Your task to perform on an android device: Go to ESPN.com Image 0: 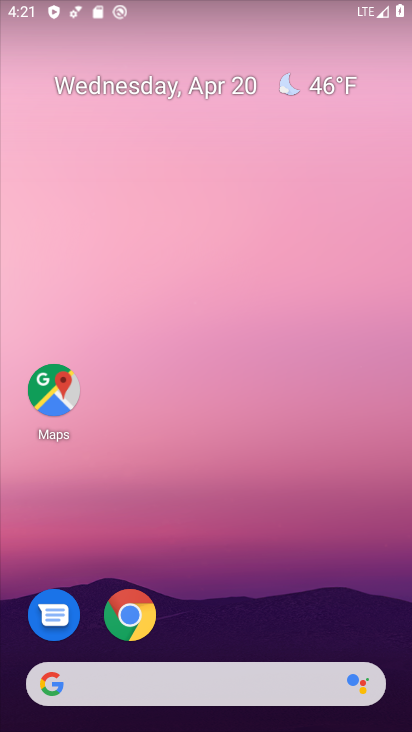
Step 0: click (132, 614)
Your task to perform on an android device: Go to ESPN.com Image 1: 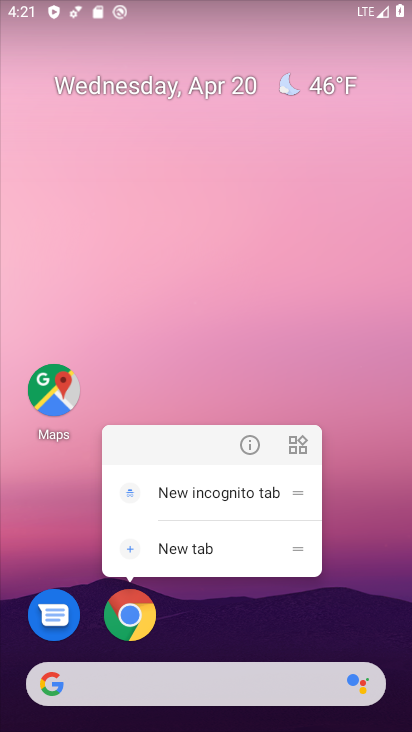
Step 1: click (130, 612)
Your task to perform on an android device: Go to ESPN.com Image 2: 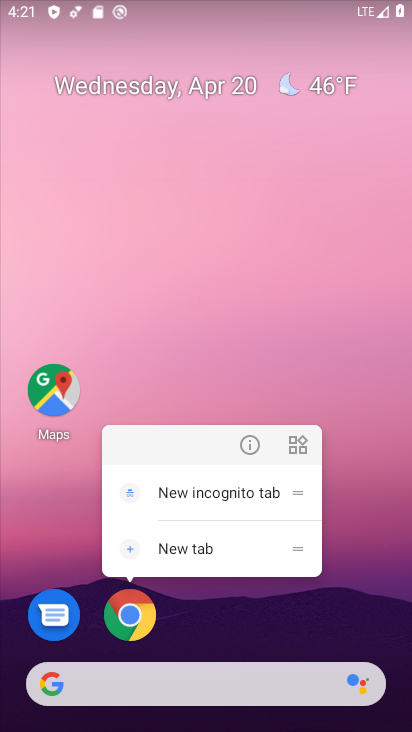
Step 2: click (131, 611)
Your task to perform on an android device: Go to ESPN.com Image 3: 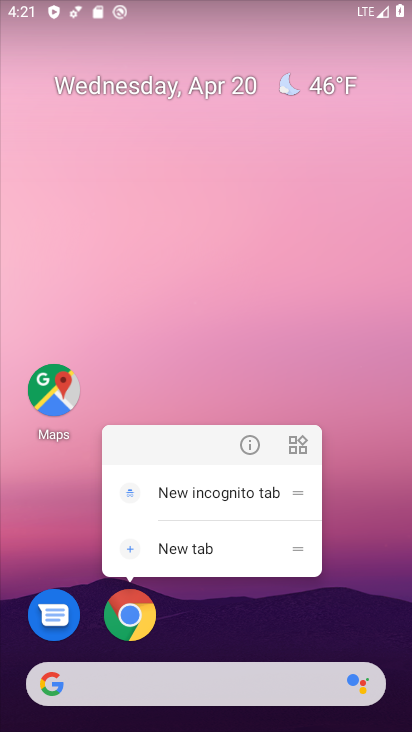
Step 3: click (115, 605)
Your task to perform on an android device: Go to ESPN.com Image 4: 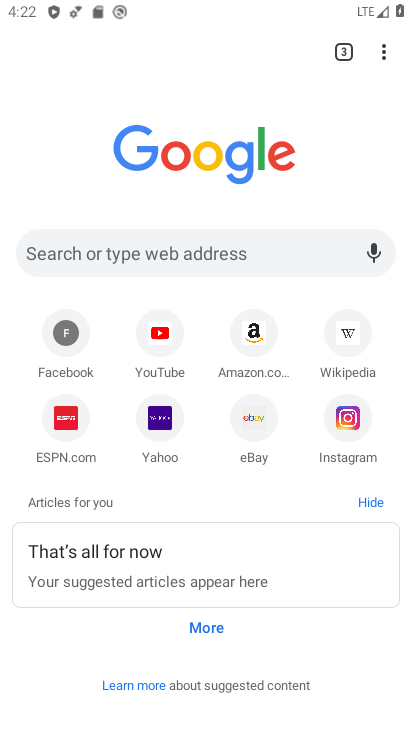
Step 4: click (73, 433)
Your task to perform on an android device: Go to ESPN.com Image 5: 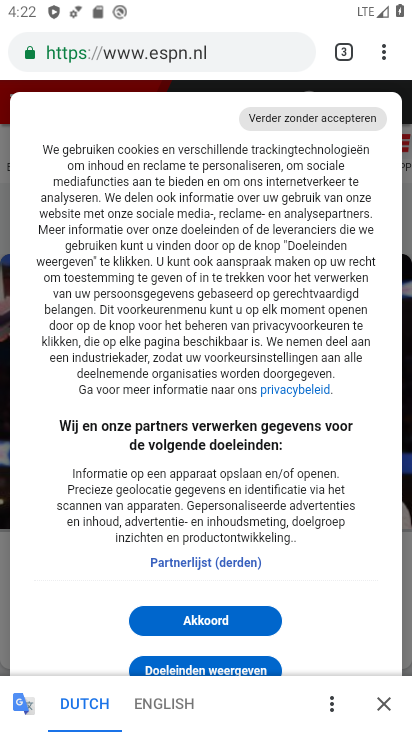
Step 5: task complete